Your task to perform on an android device: toggle data saver in the chrome app Image 0: 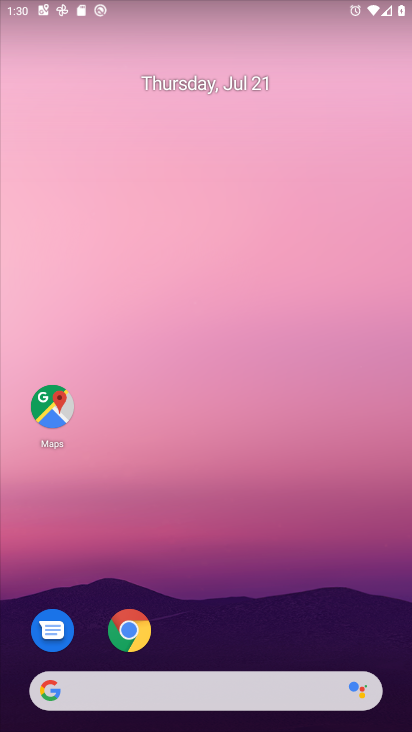
Step 0: drag from (182, 644) to (254, 32)
Your task to perform on an android device: toggle data saver in the chrome app Image 1: 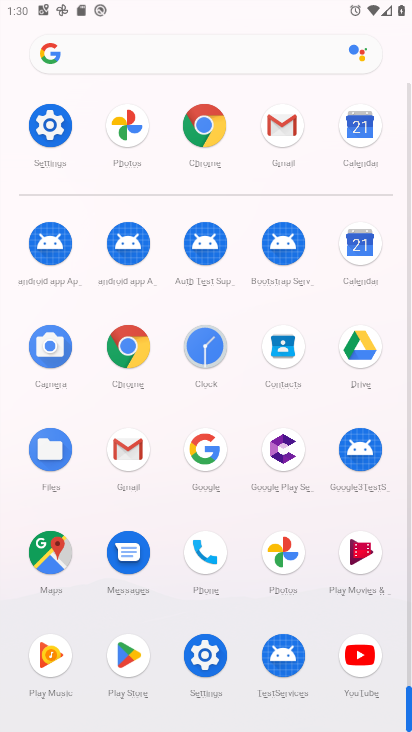
Step 1: click (121, 346)
Your task to perform on an android device: toggle data saver in the chrome app Image 2: 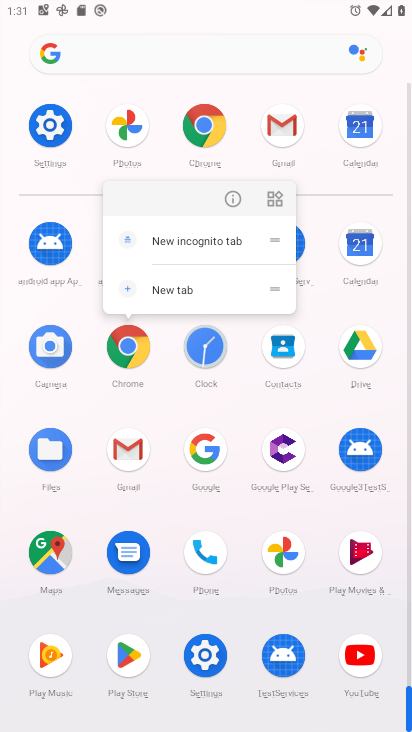
Step 2: click (226, 190)
Your task to perform on an android device: toggle data saver in the chrome app Image 3: 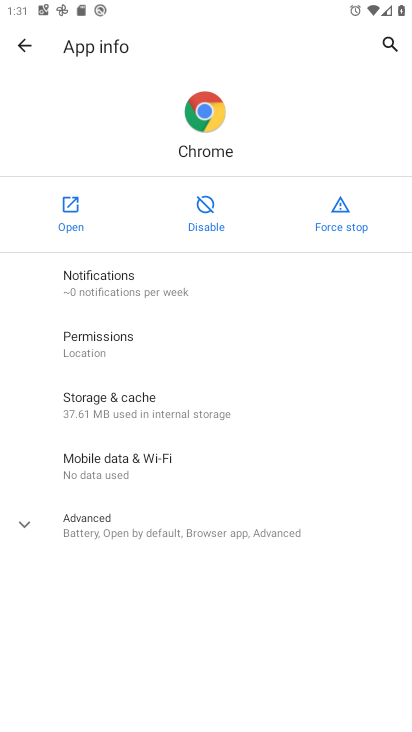
Step 3: click (77, 217)
Your task to perform on an android device: toggle data saver in the chrome app Image 4: 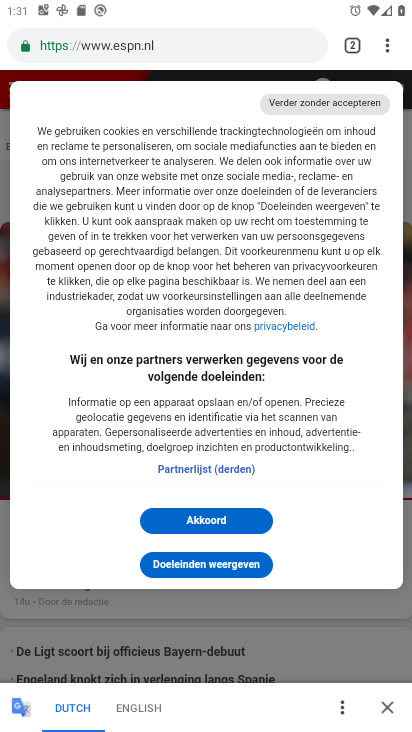
Step 4: drag from (383, 48) to (248, 548)
Your task to perform on an android device: toggle data saver in the chrome app Image 5: 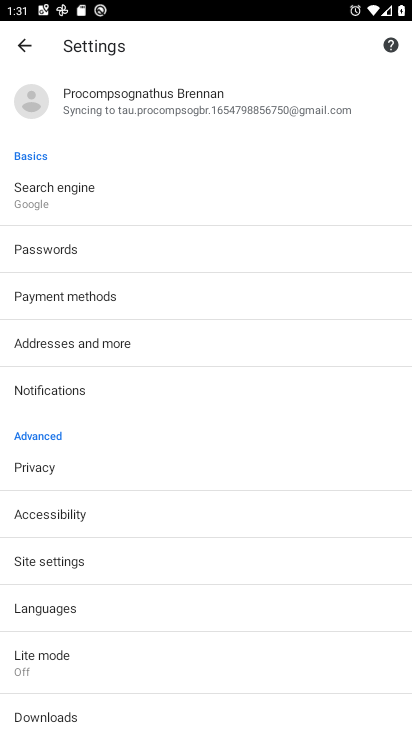
Step 5: click (78, 664)
Your task to perform on an android device: toggle data saver in the chrome app Image 6: 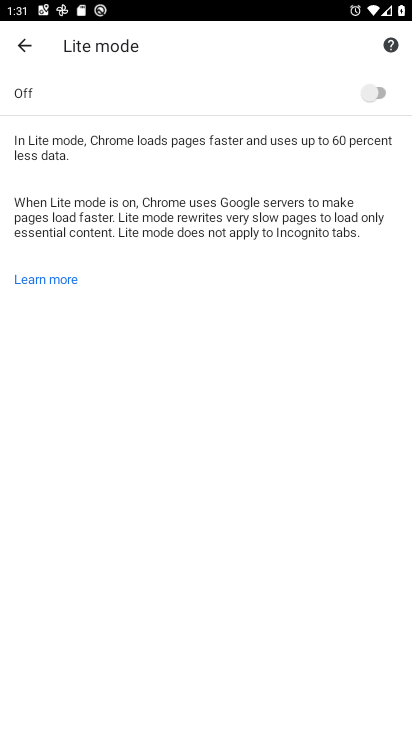
Step 6: click (358, 95)
Your task to perform on an android device: toggle data saver in the chrome app Image 7: 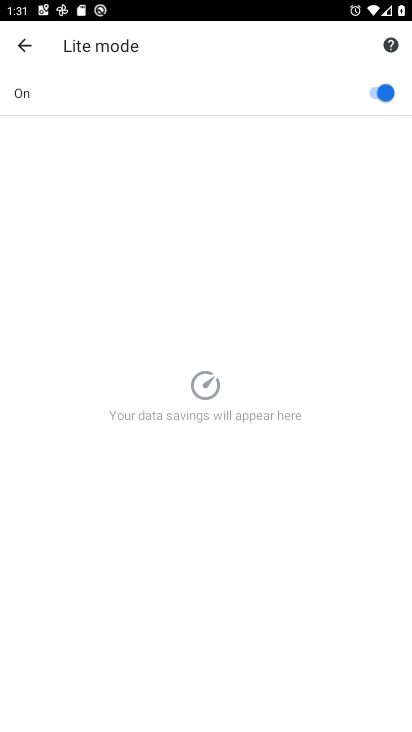
Step 7: task complete